Your task to perform on an android device: Clear the cart on costco. Search for asus zenbook on costco, select the first entry, add it to the cart, then select checkout. Image 0: 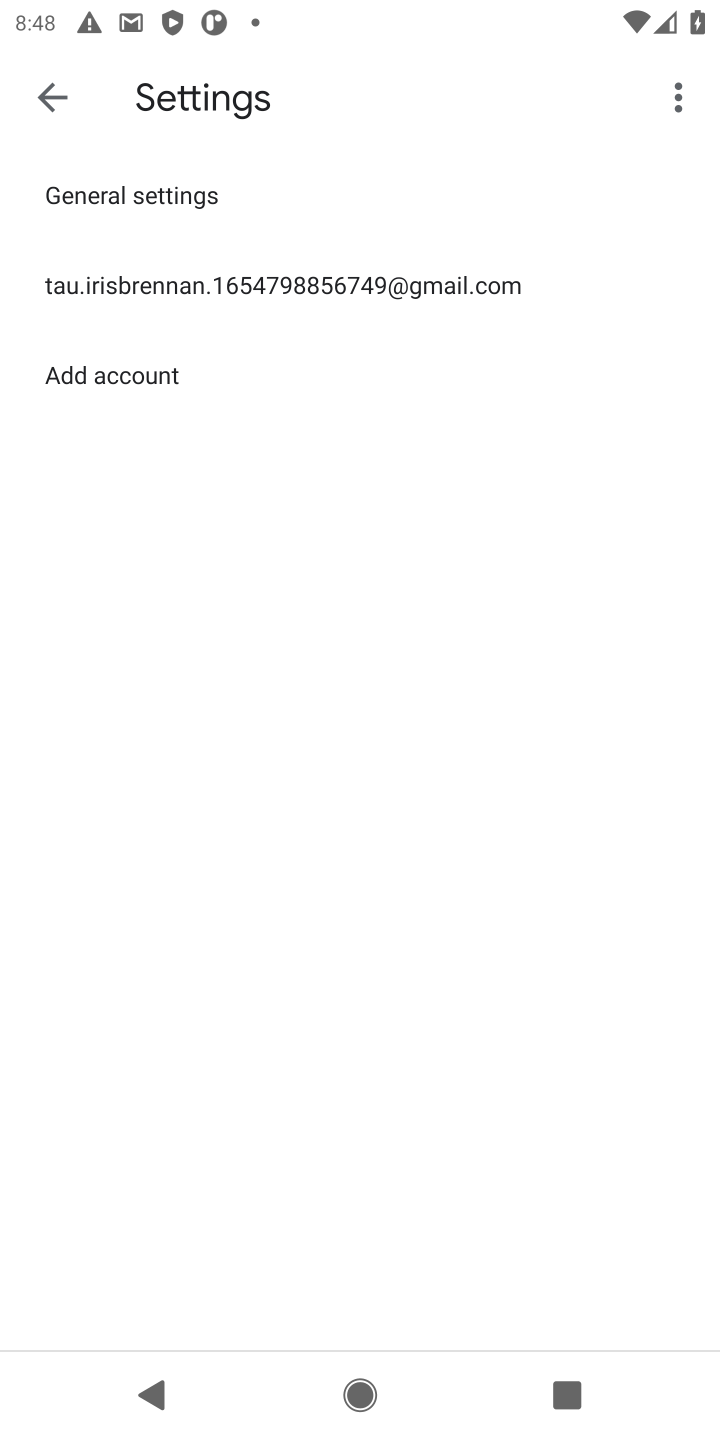
Step 0: press home button
Your task to perform on an android device: Clear the cart on costco. Search for asus zenbook on costco, select the first entry, add it to the cart, then select checkout. Image 1: 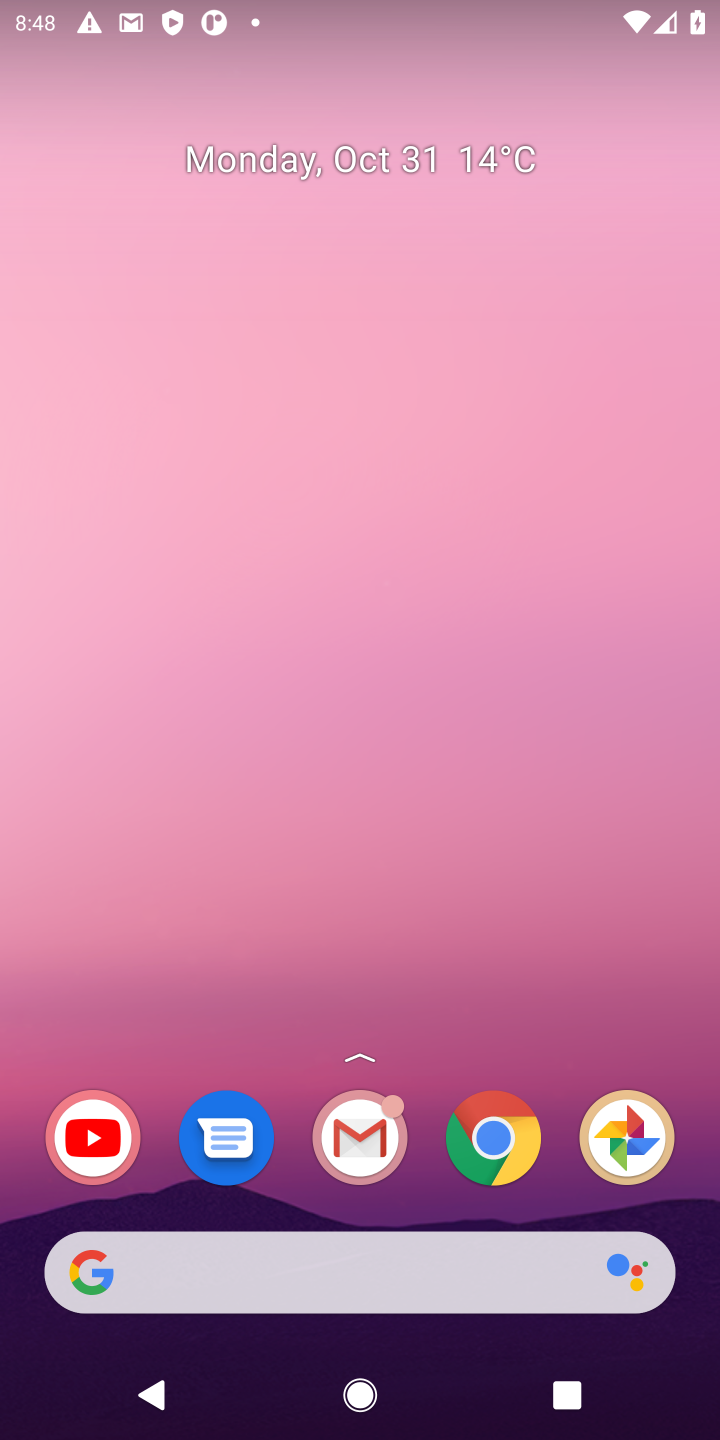
Step 1: click (504, 1150)
Your task to perform on an android device: Clear the cart on costco. Search for asus zenbook on costco, select the first entry, add it to the cart, then select checkout. Image 2: 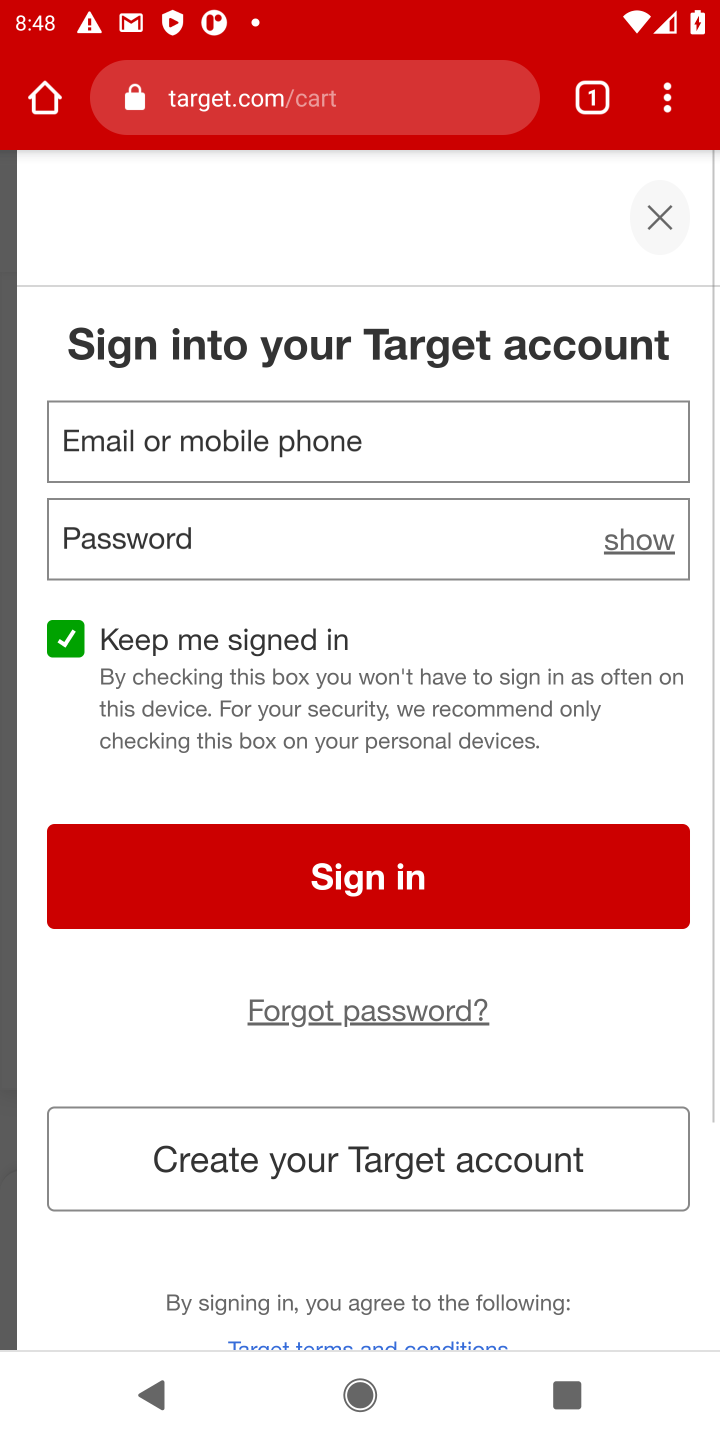
Step 2: click (216, 96)
Your task to perform on an android device: Clear the cart on costco. Search for asus zenbook on costco, select the first entry, add it to the cart, then select checkout. Image 3: 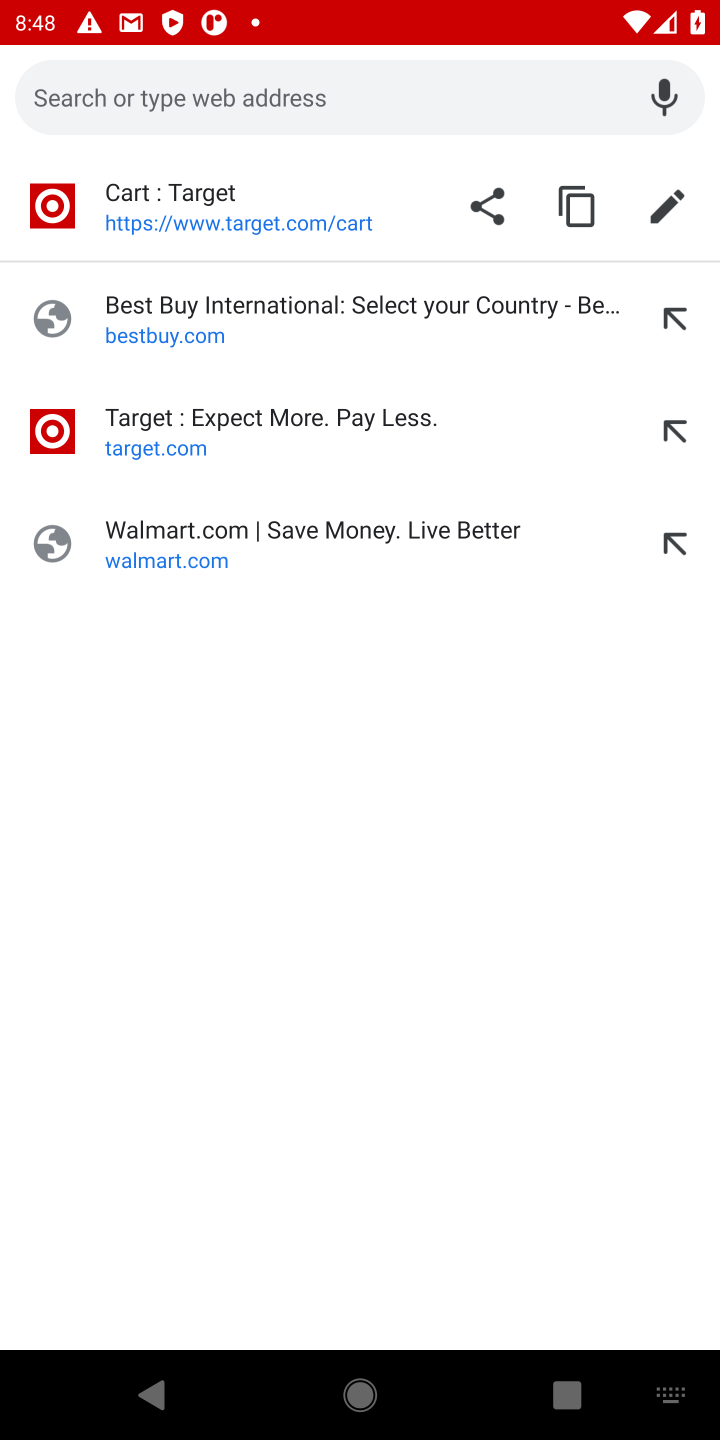
Step 3: type "costco"
Your task to perform on an android device: Clear the cart on costco. Search for asus zenbook on costco, select the first entry, add it to the cart, then select checkout. Image 4: 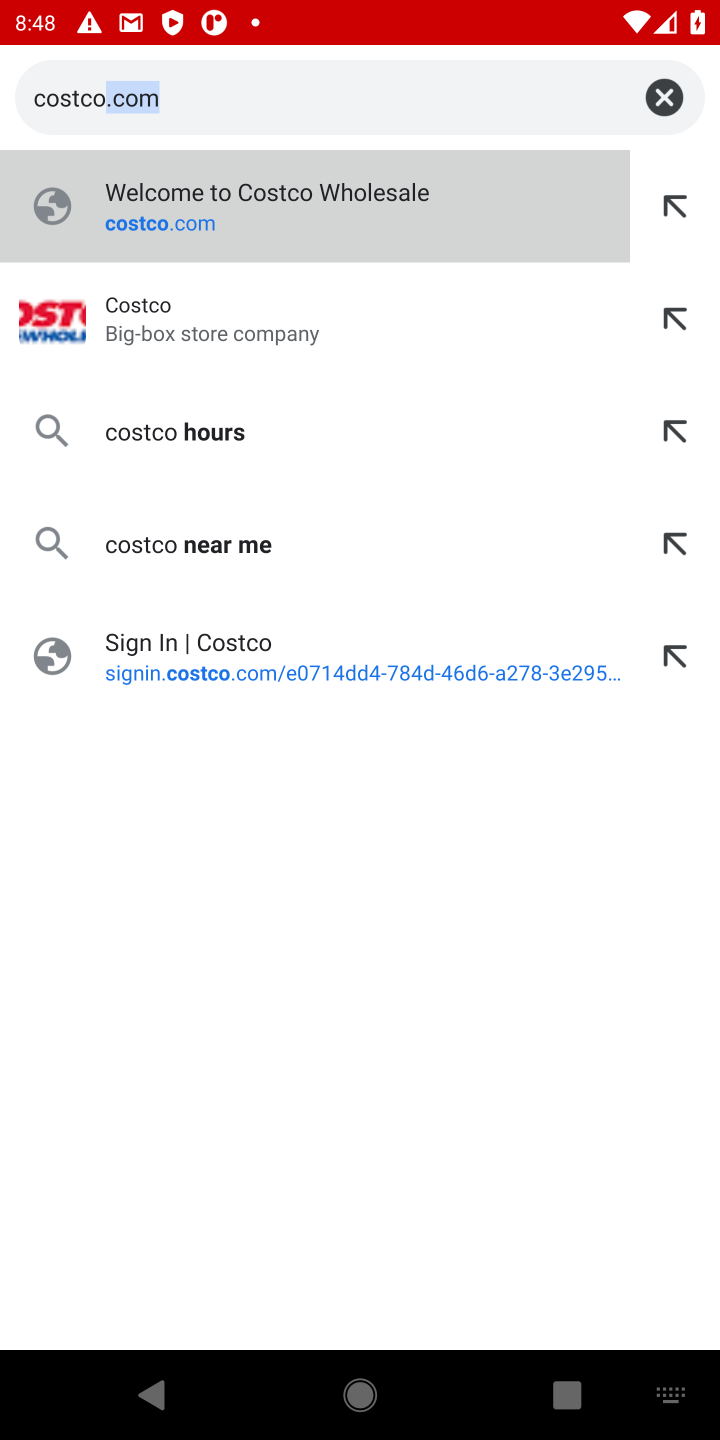
Step 4: click (131, 332)
Your task to perform on an android device: Clear the cart on costco. Search for asus zenbook on costco, select the first entry, add it to the cart, then select checkout. Image 5: 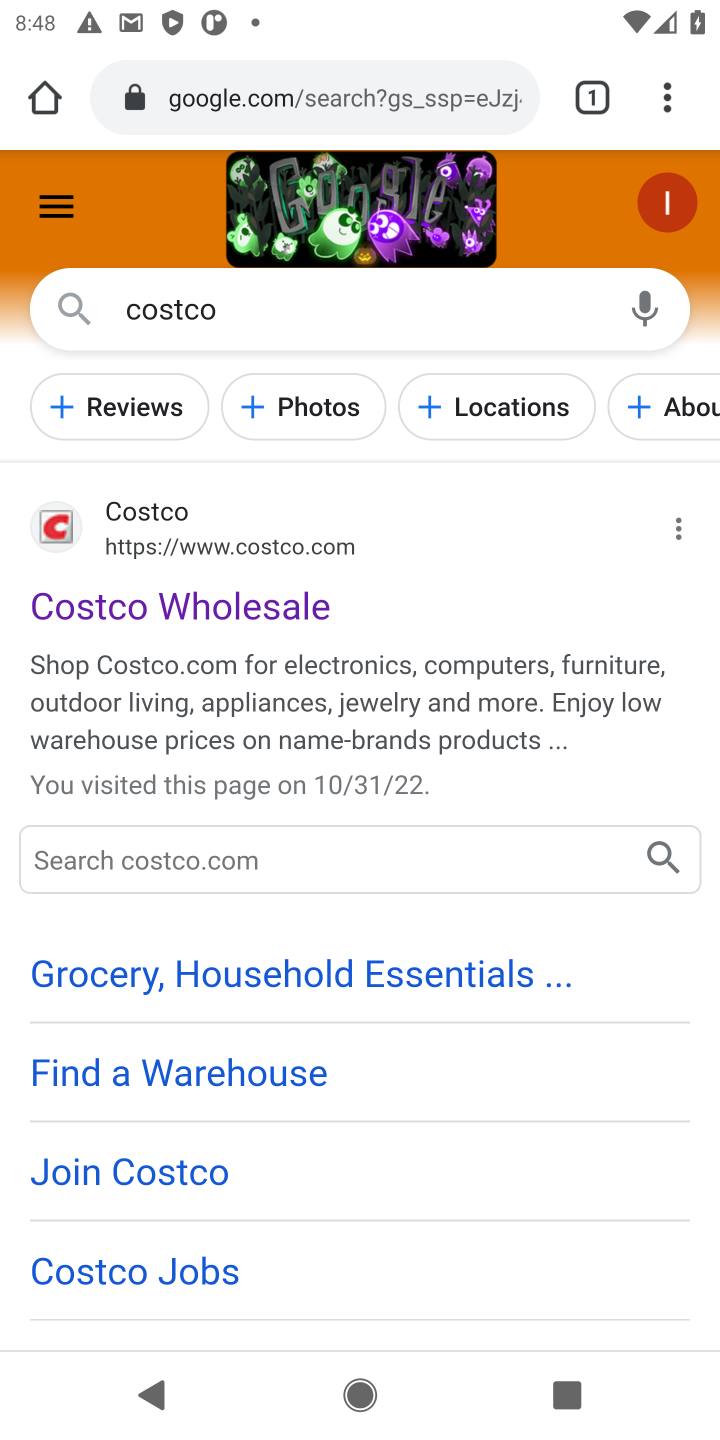
Step 5: click (156, 312)
Your task to perform on an android device: Clear the cart on costco. Search for asus zenbook on costco, select the first entry, add it to the cart, then select checkout. Image 6: 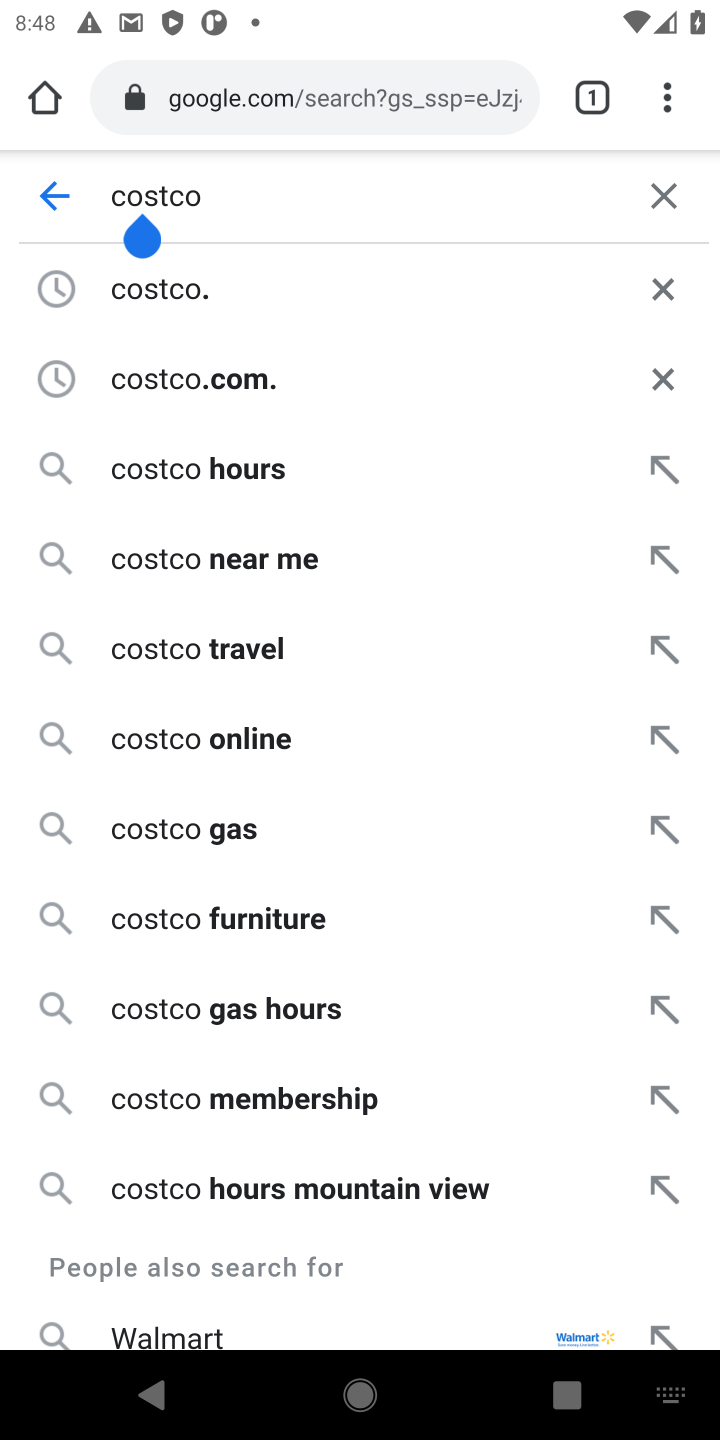
Step 6: click (642, 209)
Your task to perform on an android device: Clear the cart on costco. Search for asus zenbook on costco, select the first entry, add it to the cart, then select checkout. Image 7: 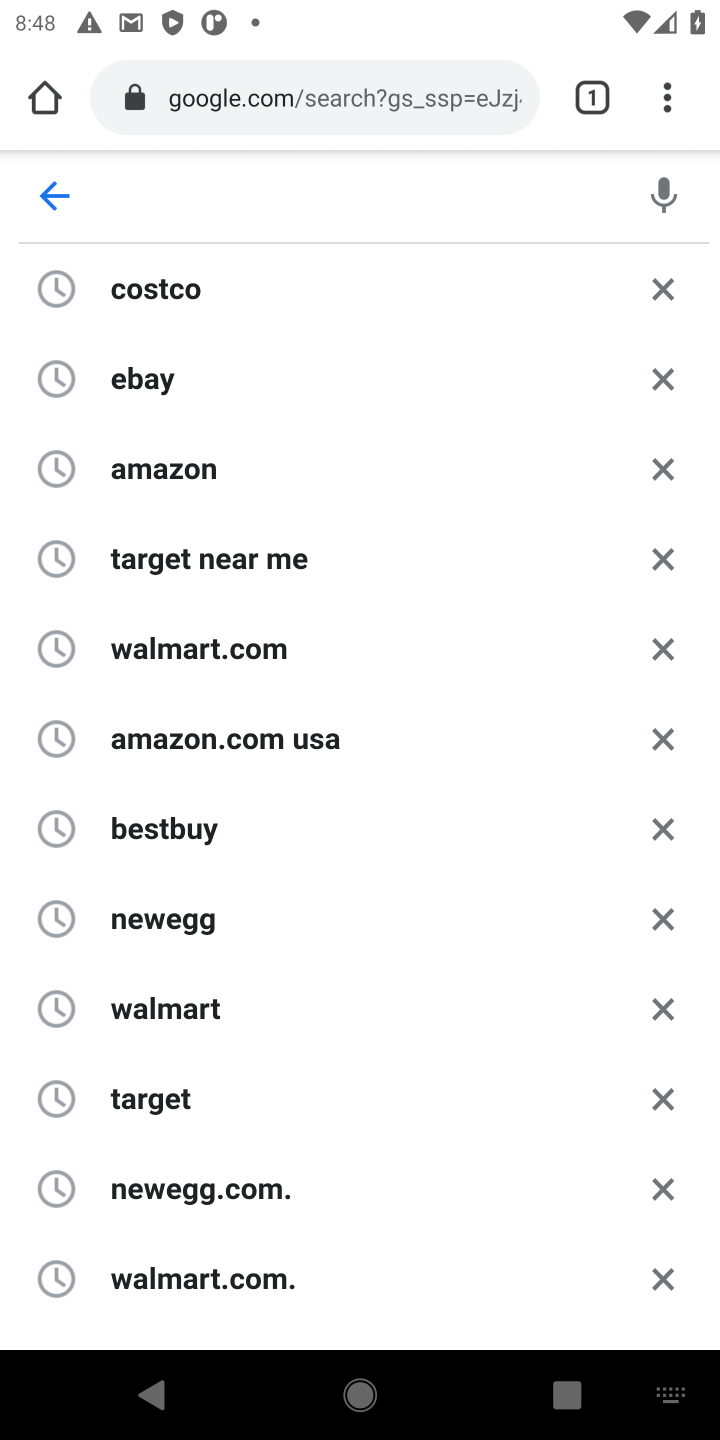
Step 7: press back button
Your task to perform on an android device: Clear the cart on costco. Search for asus zenbook on costco, select the first entry, add it to the cart, then select checkout. Image 8: 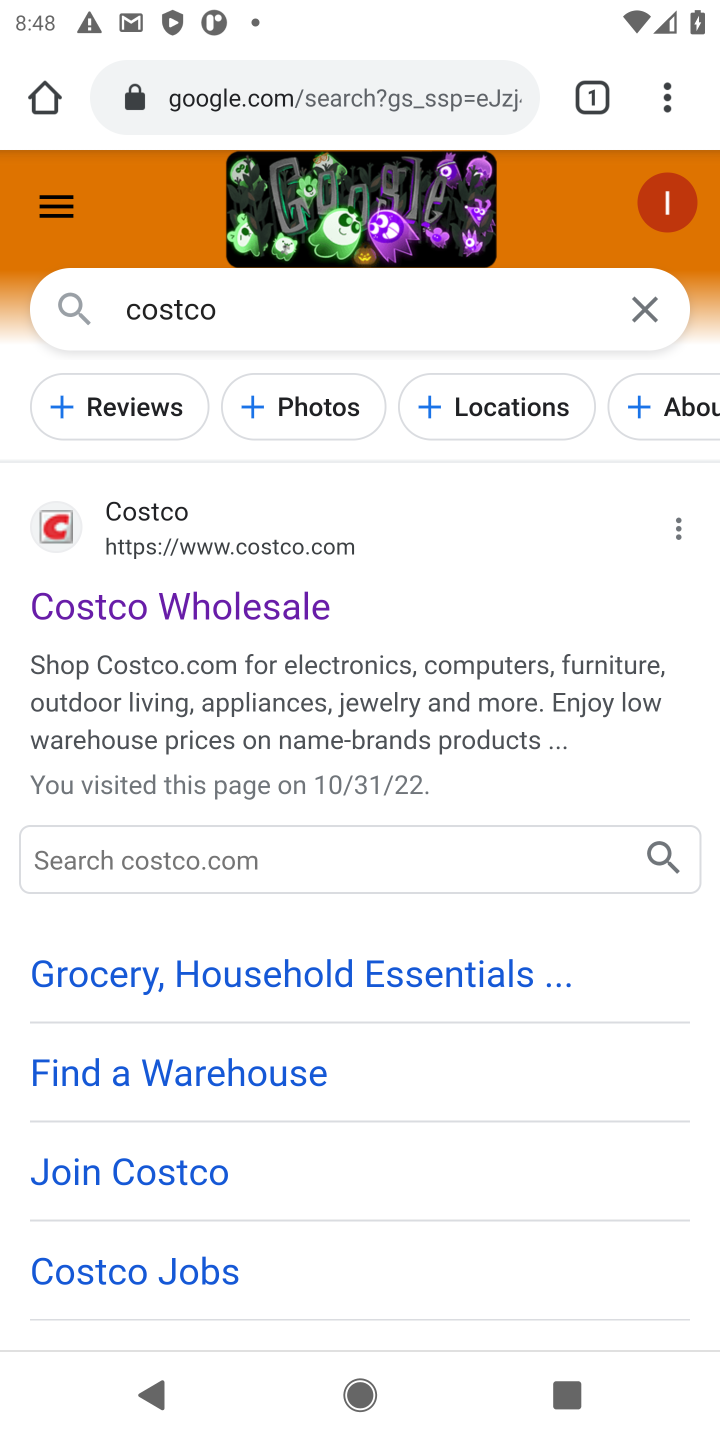
Step 8: drag from (219, 1074) to (261, 384)
Your task to perform on an android device: Clear the cart on costco. Search for asus zenbook on costco, select the first entry, add it to the cart, then select checkout. Image 9: 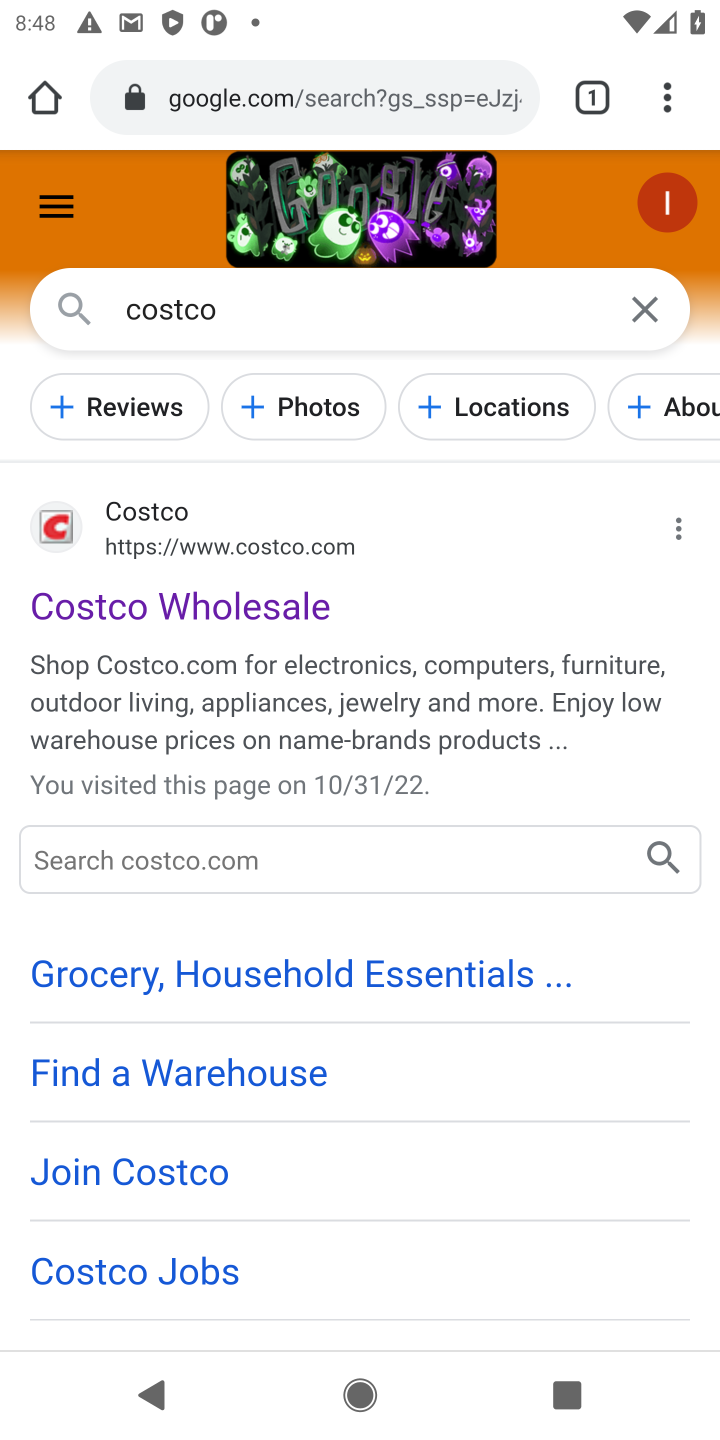
Step 9: drag from (174, 1227) to (152, 483)
Your task to perform on an android device: Clear the cart on costco. Search for asus zenbook on costco, select the first entry, add it to the cart, then select checkout. Image 10: 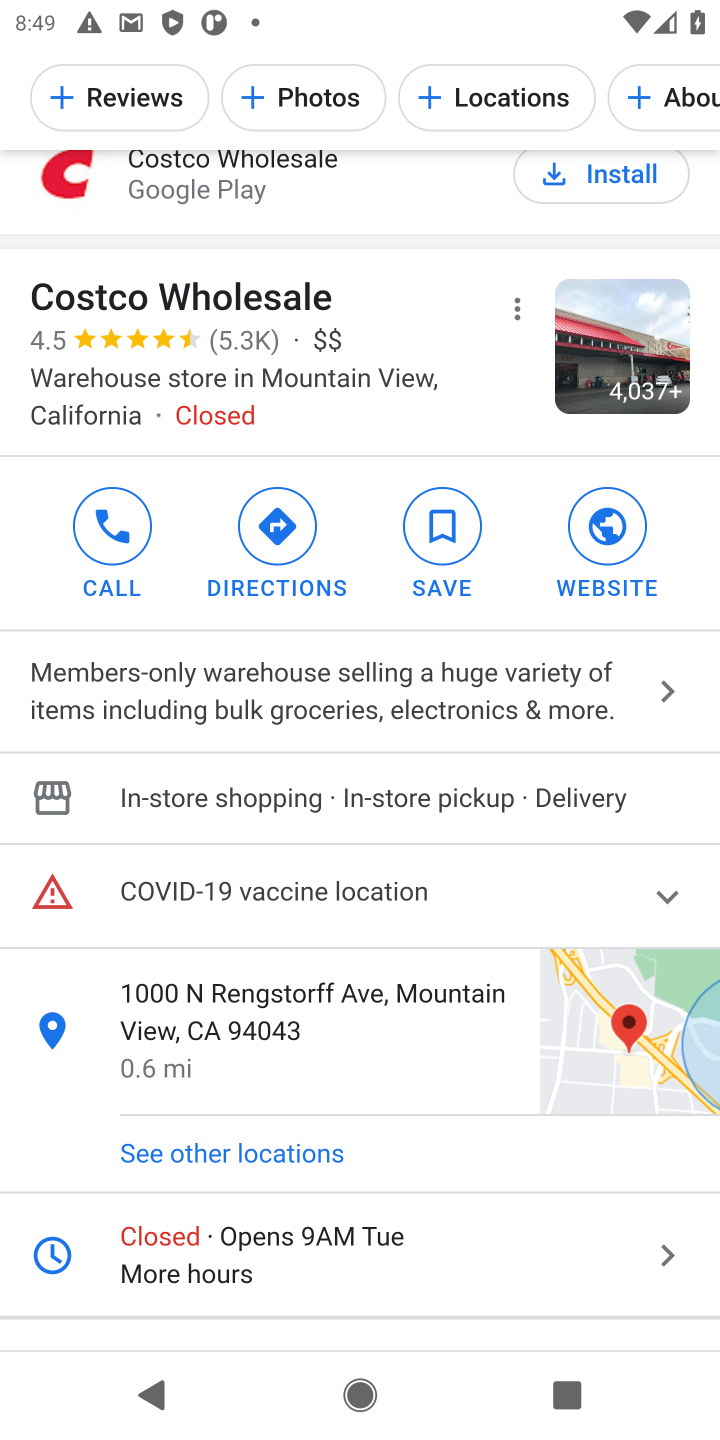
Step 10: drag from (62, 1163) to (165, 367)
Your task to perform on an android device: Clear the cart on costco. Search for asus zenbook on costco, select the first entry, add it to the cart, then select checkout. Image 11: 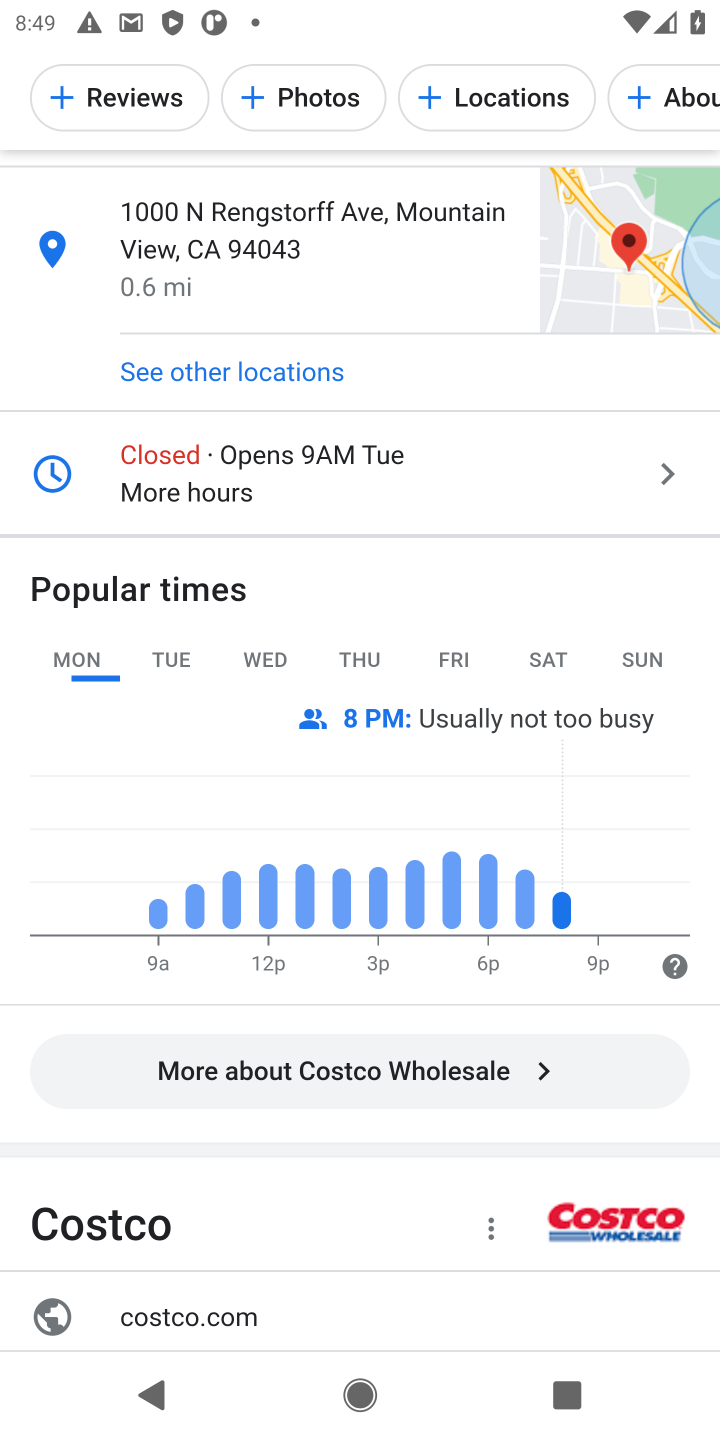
Step 11: drag from (17, 1120) to (76, 451)
Your task to perform on an android device: Clear the cart on costco. Search for asus zenbook on costco, select the first entry, add it to the cart, then select checkout. Image 12: 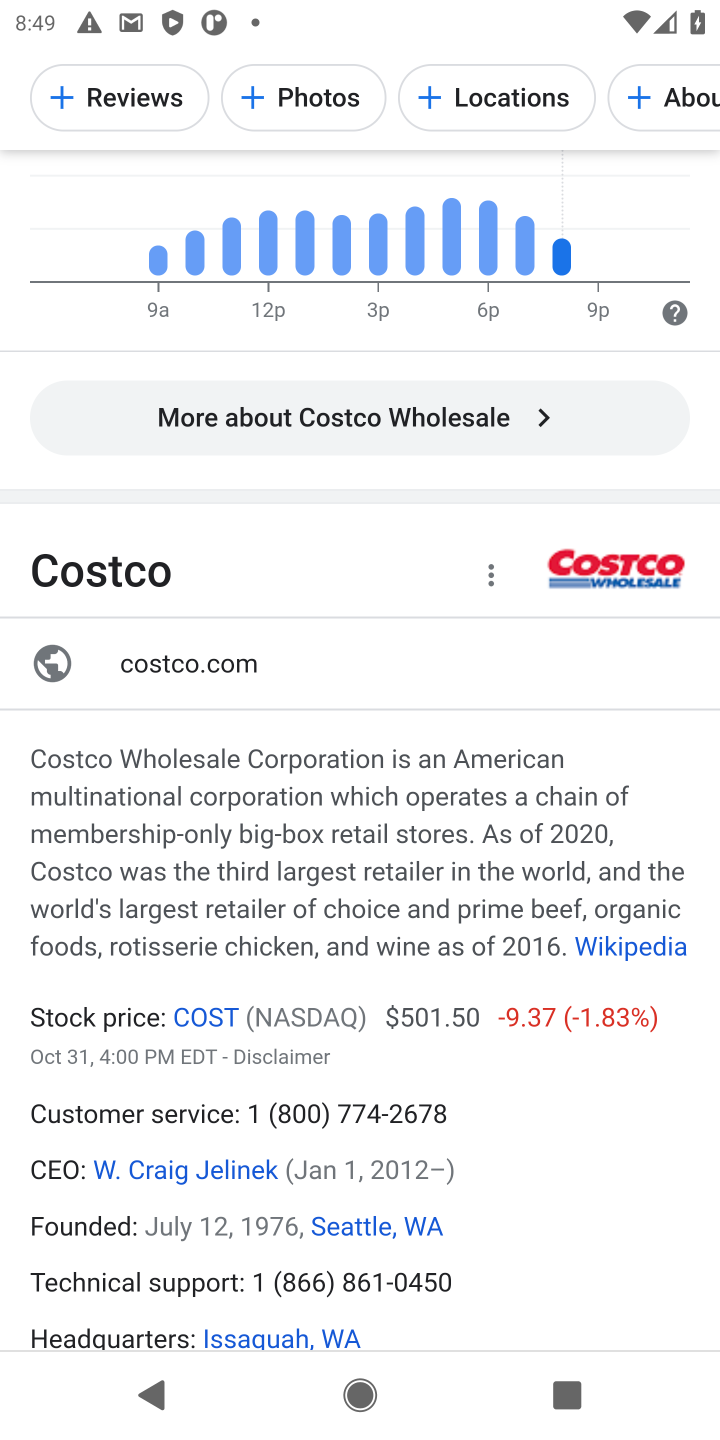
Step 12: drag from (110, 1027) to (150, 571)
Your task to perform on an android device: Clear the cart on costco. Search for asus zenbook on costco, select the first entry, add it to the cart, then select checkout. Image 13: 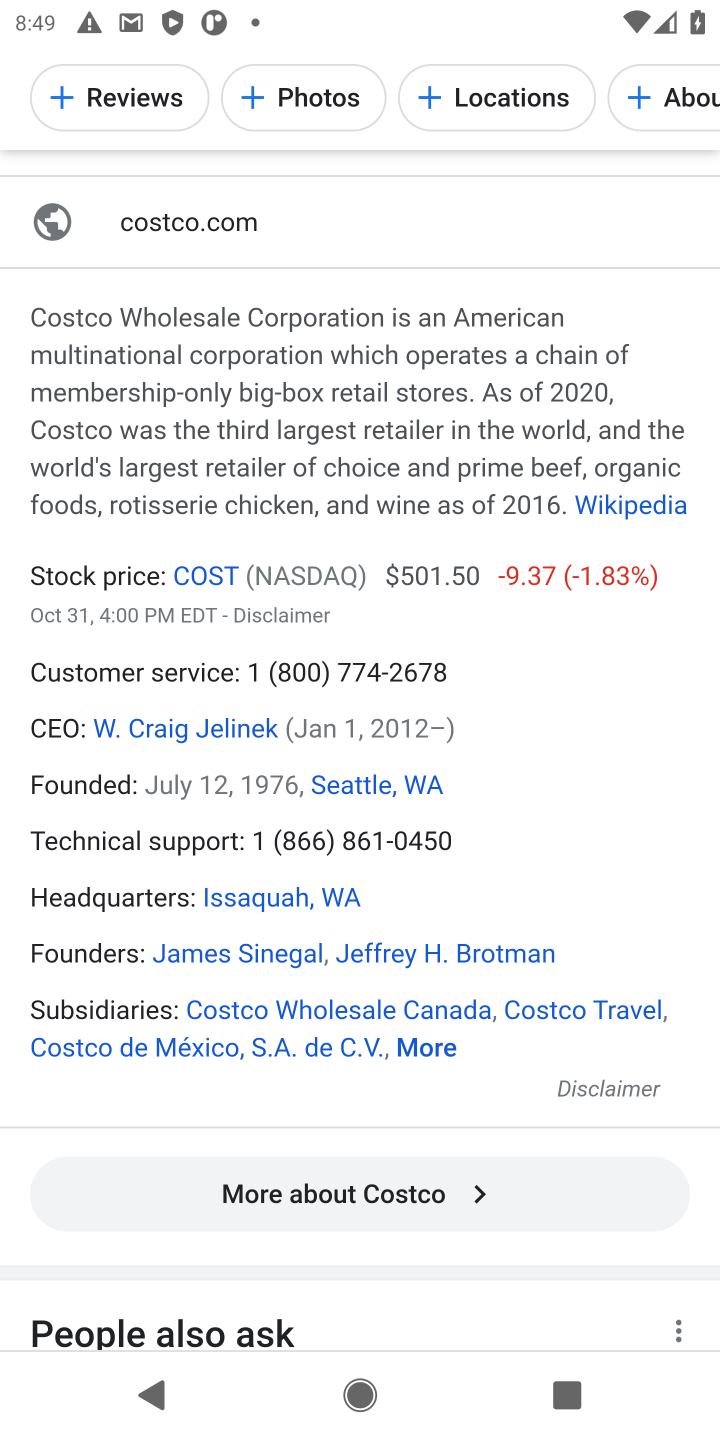
Step 13: drag from (123, 504) to (115, 1188)
Your task to perform on an android device: Clear the cart on costco. Search for asus zenbook on costco, select the first entry, add it to the cart, then select checkout. Image 14: 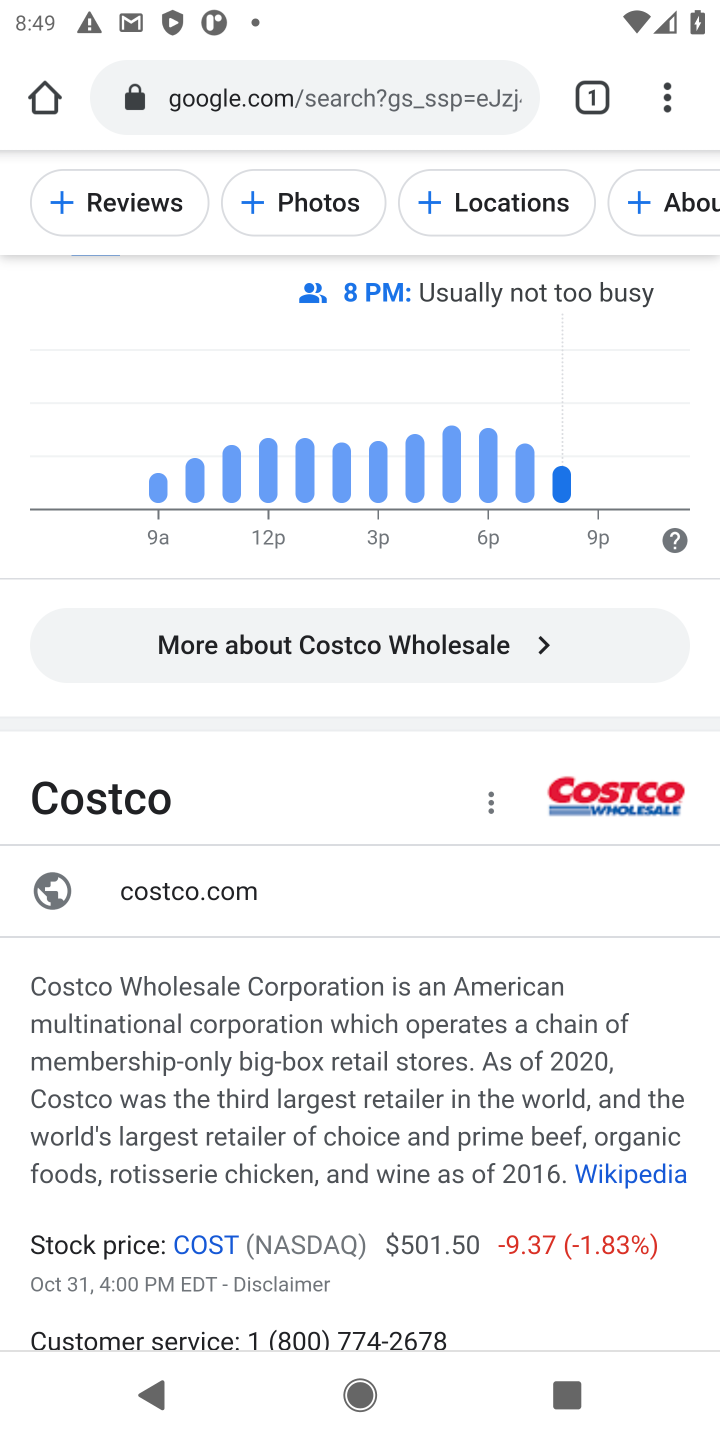
Step 14: drag from (110, 629) to (164, 1362)
Your task to perform on an android device: Clear the cart on costco. Search for asus zenbook on costco, select the first entry, add it to the cart, then select checkout. Image 15: 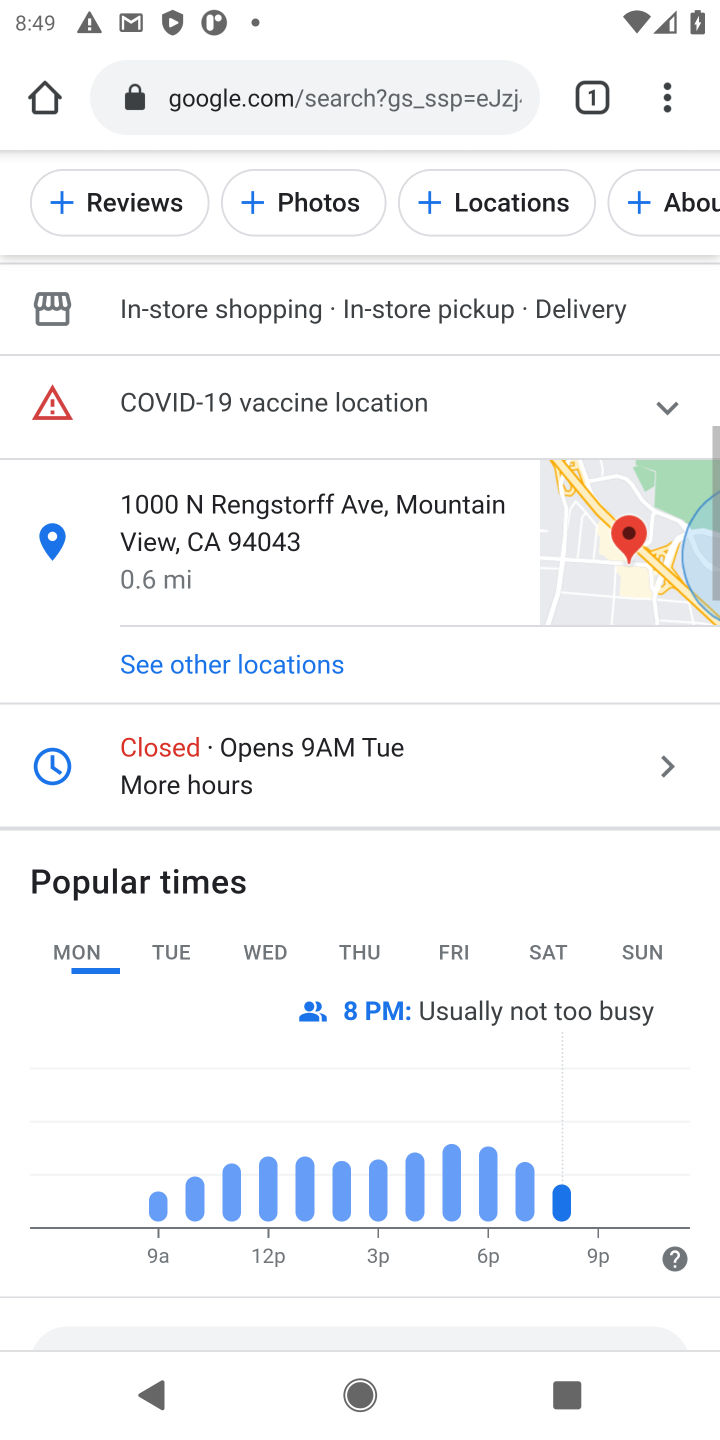
Step 15: drag from (175, 467) to (199, 1399)
Your task to perform on an android device: Clear the cart on costco. Search for asus zenbook on costco, select the first entry, add it to the cart, then select checkout. Image 16: 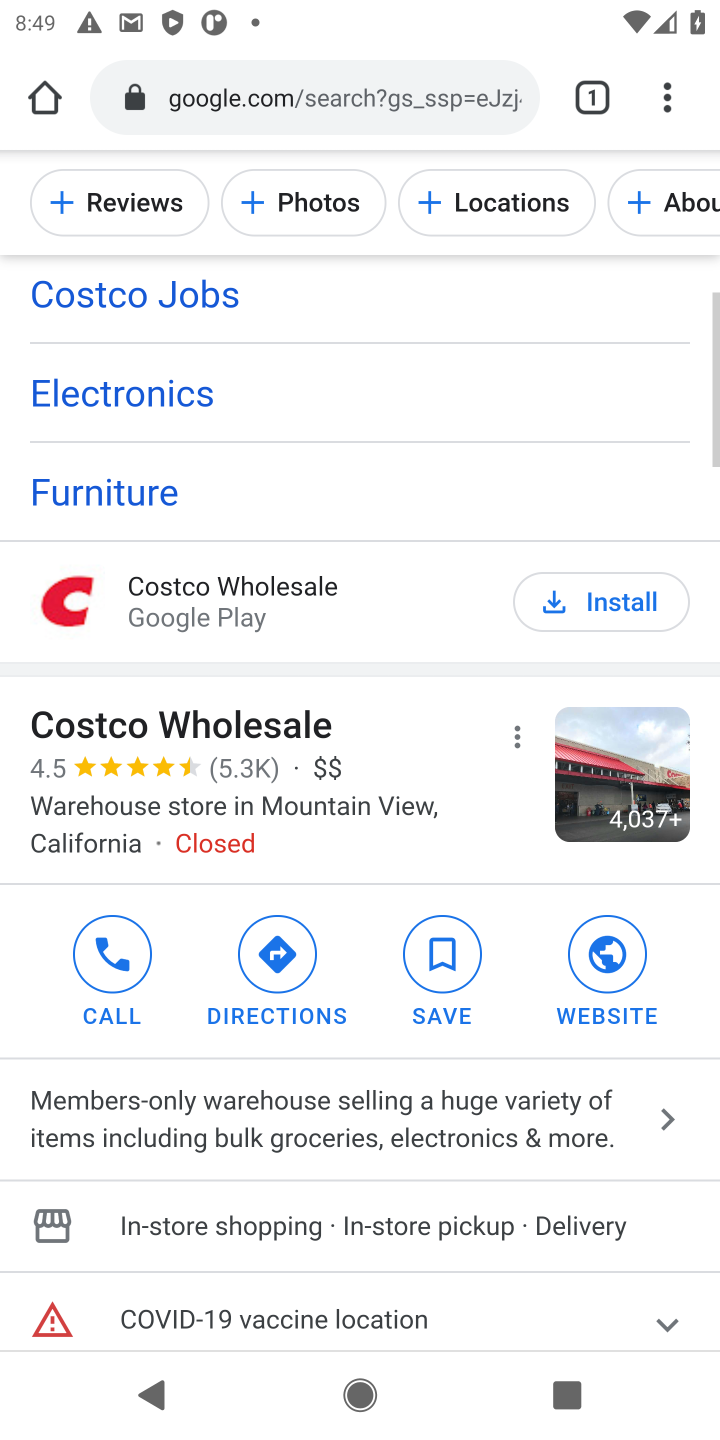
Step 16: drag from (265, 380) to (182, 1144)
Your task to perform on an android device: Clear the cart on costco. Search for asus zenbook on costco, select the first entry, add it to the cart, then select checkout. Image 17: 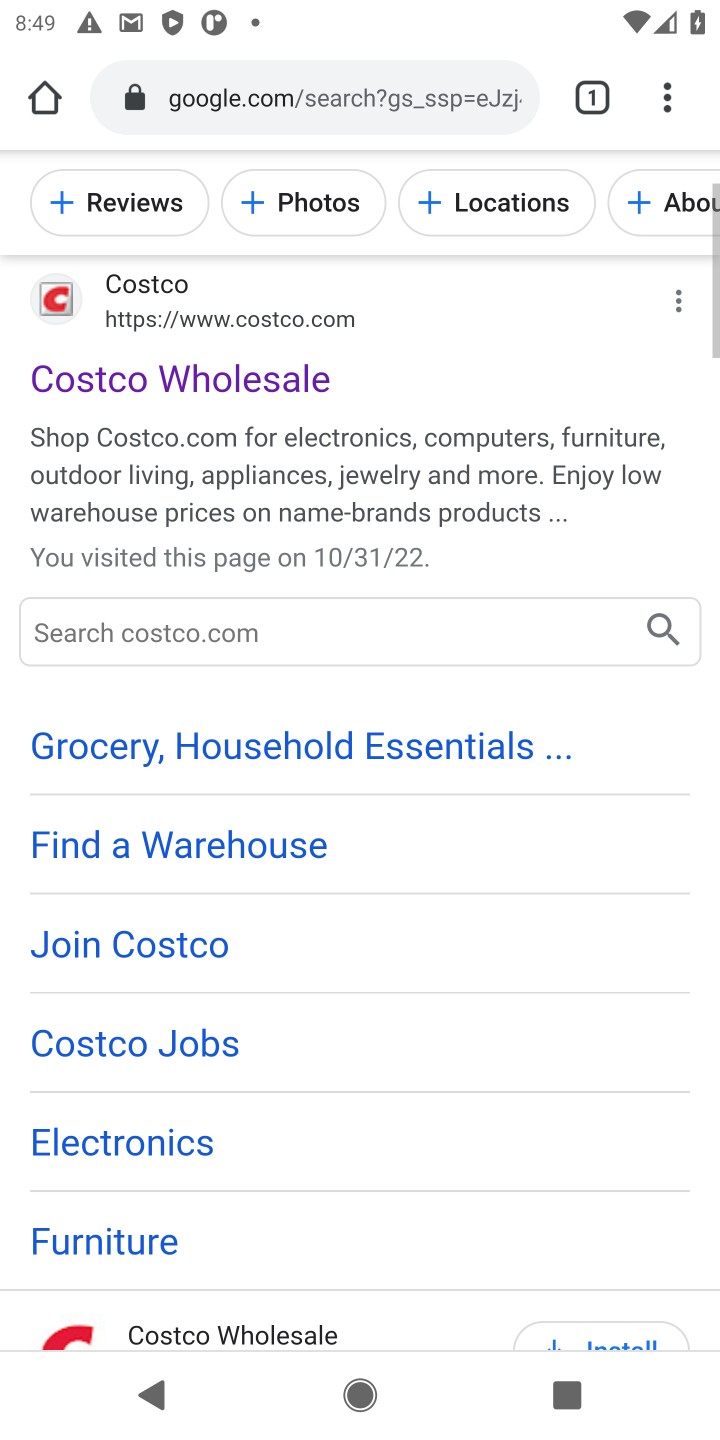
Step 17: drag from (143, 457) to (8, 1207)
Your task to perform on an android device: Clear the cart on costco. Search for asus zenbook on costco, select the first entry, add it to the cart, then select checkout. Image 18: 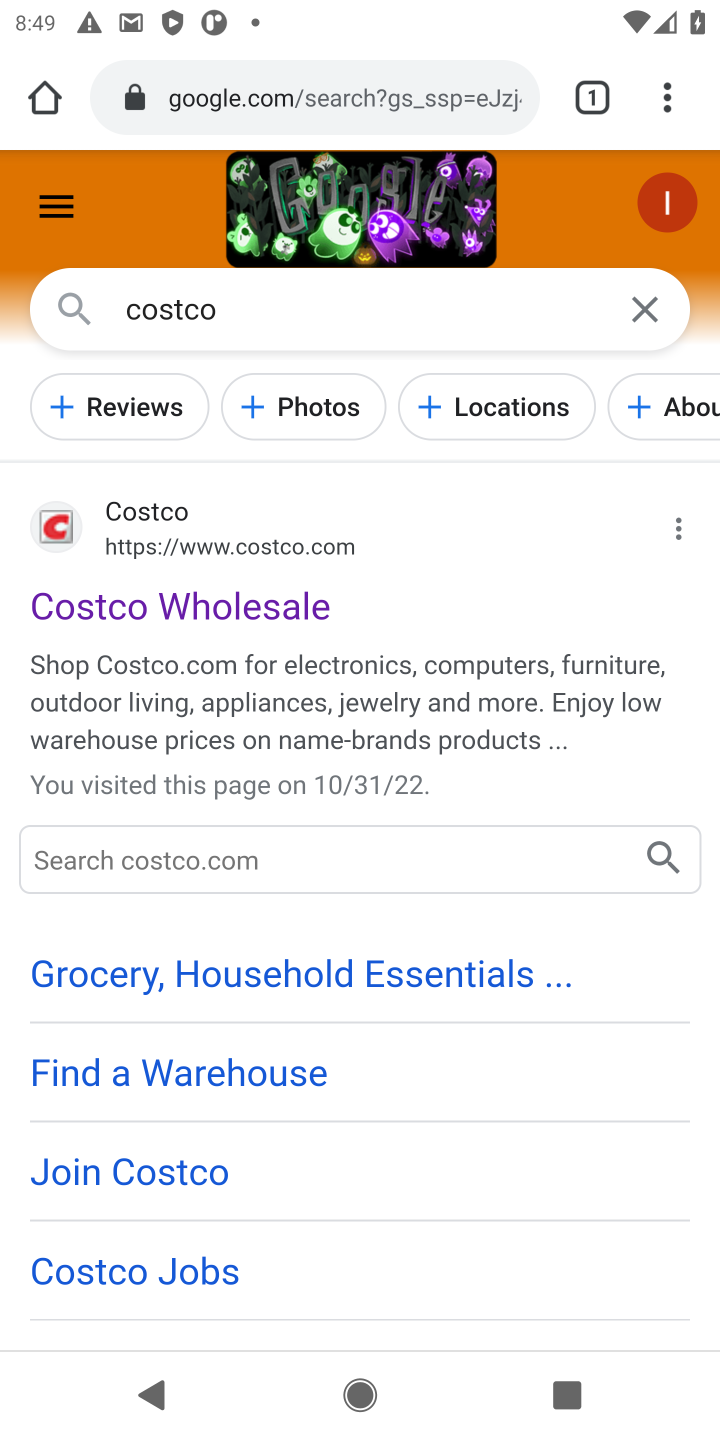
Step 18: click (116, 618)
Your task to perform on an android device: Clear the cart on costco. Search for asus zenbook on costco, select the first entry, add it to the cart, then select checkout. Image 19: 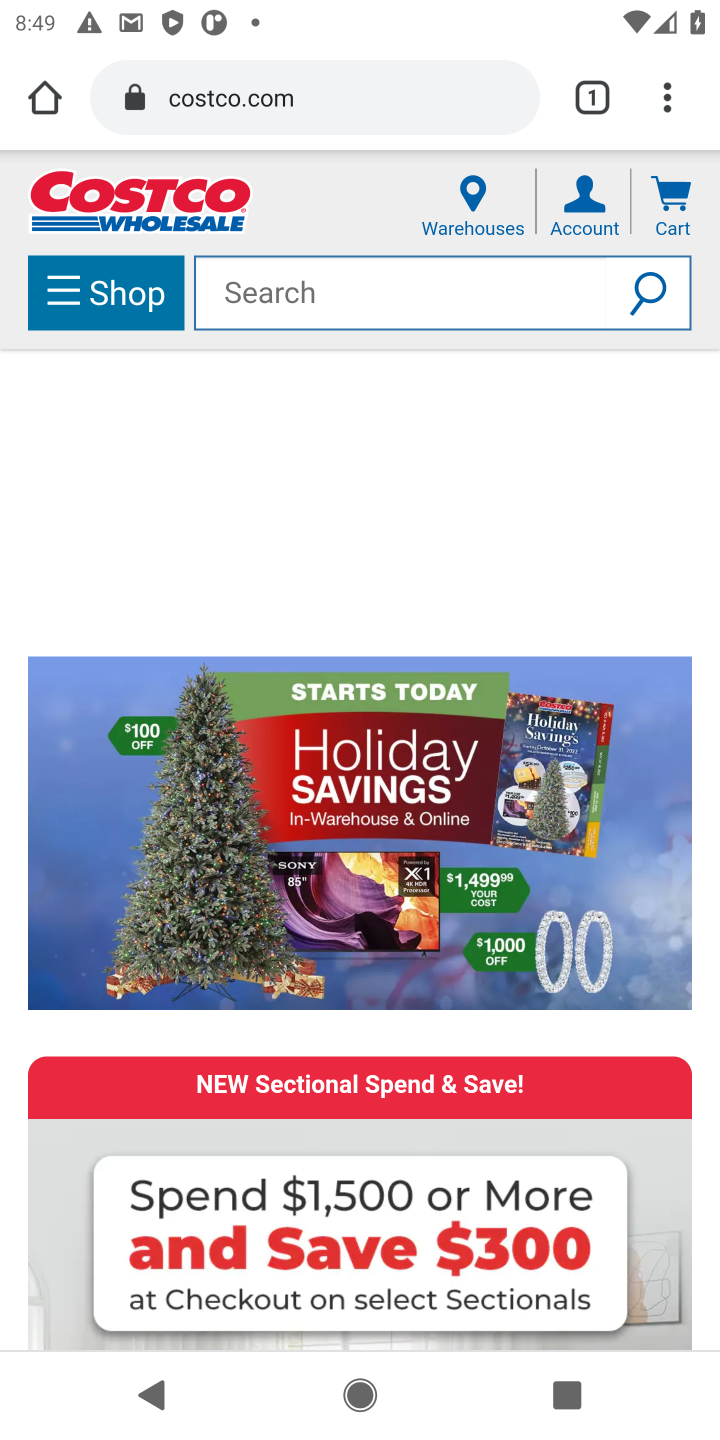
Step 19: click (306, 288)
Your task to perform on an android device: Clear the cart on costco. Search for asus zenbook on costco, select the first entry, add it to the cart, then select checkout. Image 20: 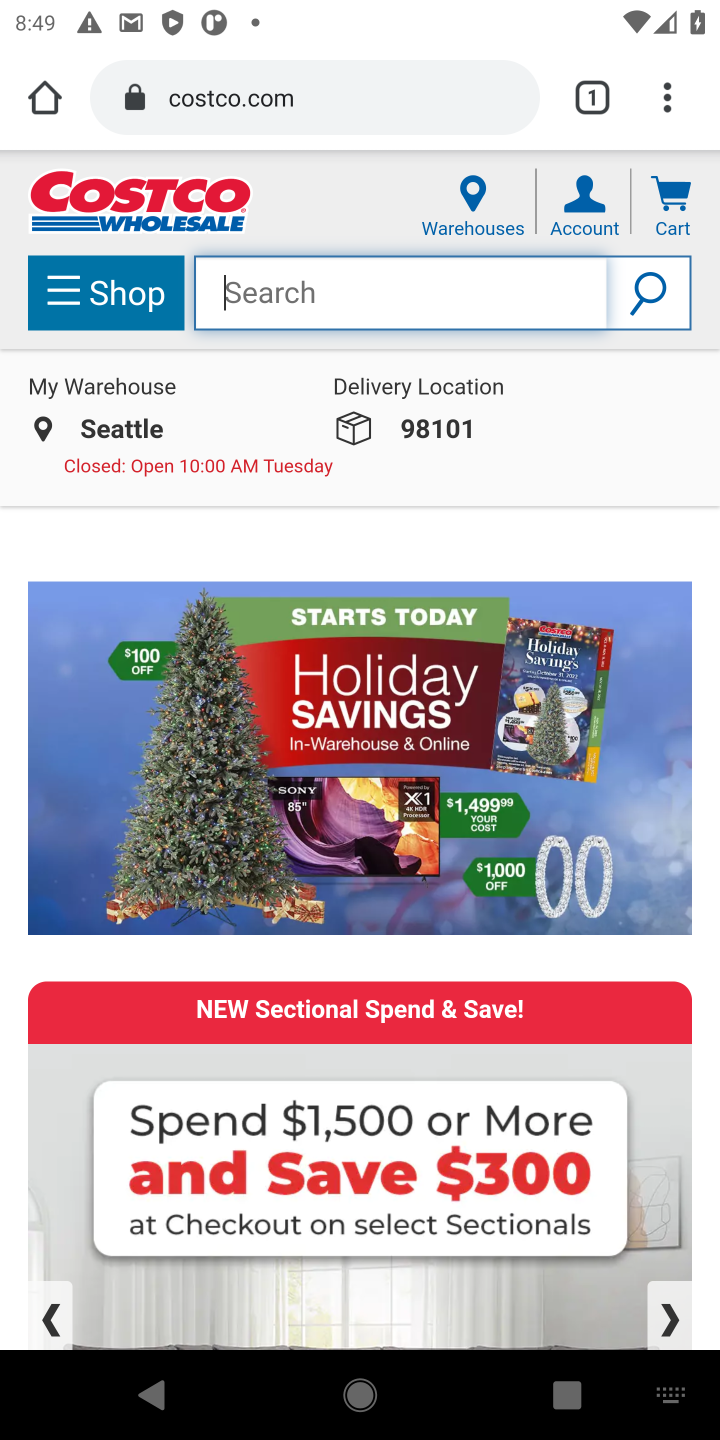
Step 20: type "asus zenbook"
Your task to perform on an android device: Clear the cart on costco. Search for asus zenbook on costco, select the first entry, add it to the cart, then select checkout. Image 21: 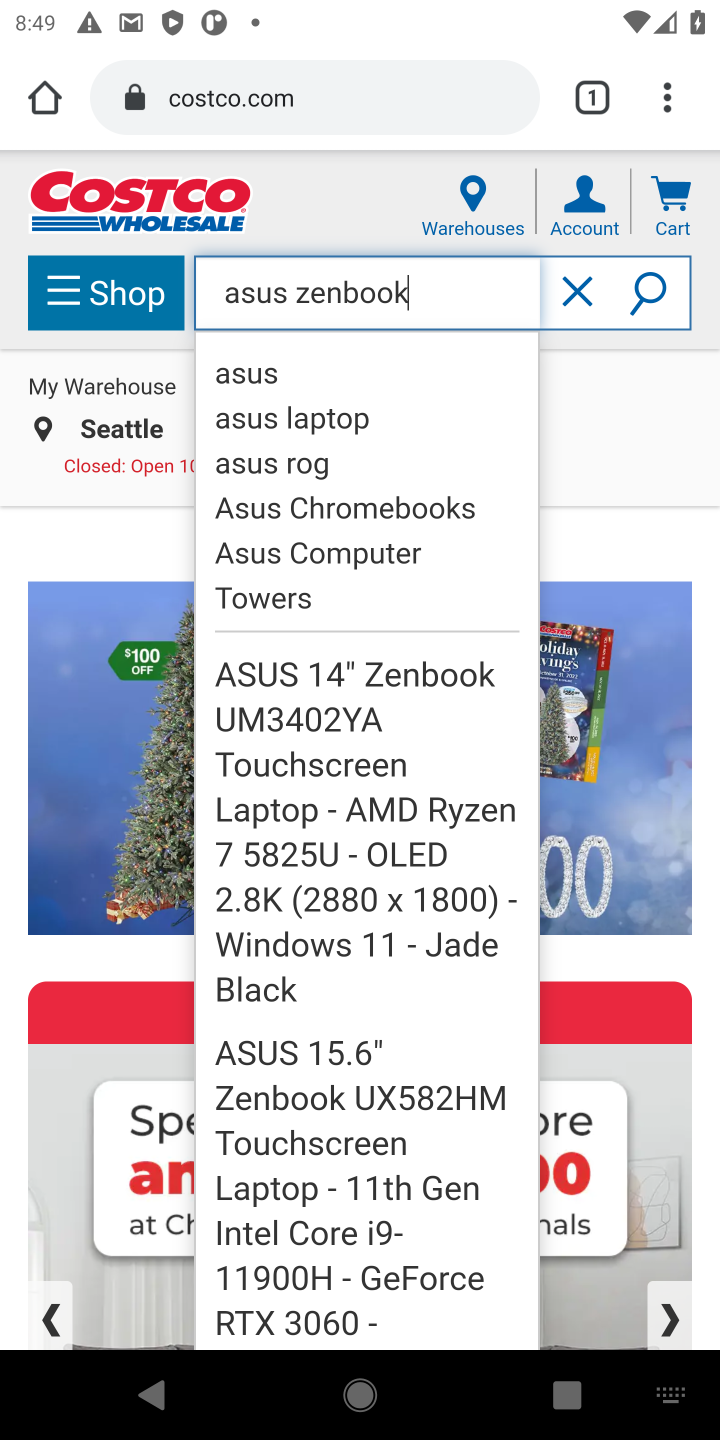
Step 21: click (327, 1113)
Your task to perform on an android device: Clear the cart on costco. Search for asus zenbook on costco, select the first entry, add it to the cart, then select checkout. Image 22: 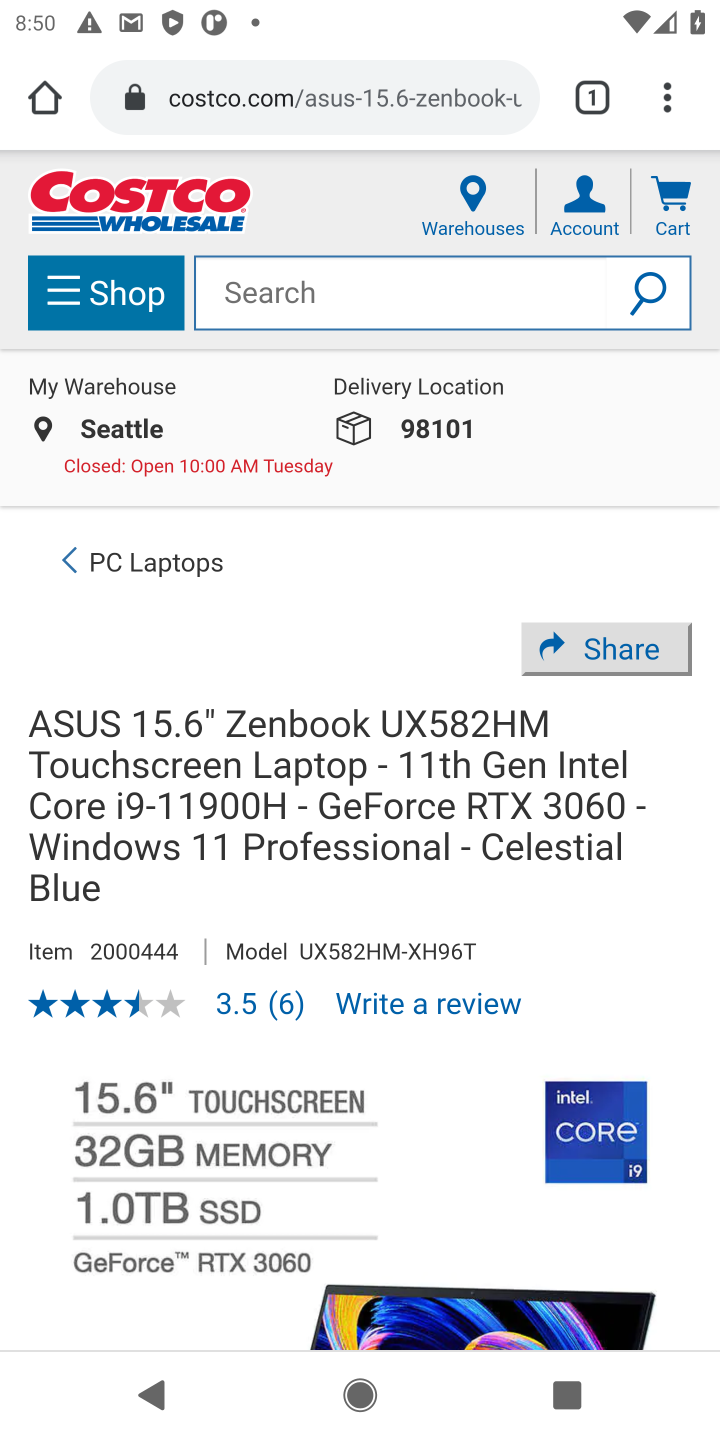
Step 22: drag from (238, 1083) to (293, 416)
Your task to perform on an android device: Clear the cart on costco. Search for asus zenbook on costco, select the first entry, add it to the cart, then select checkout. Image 23: 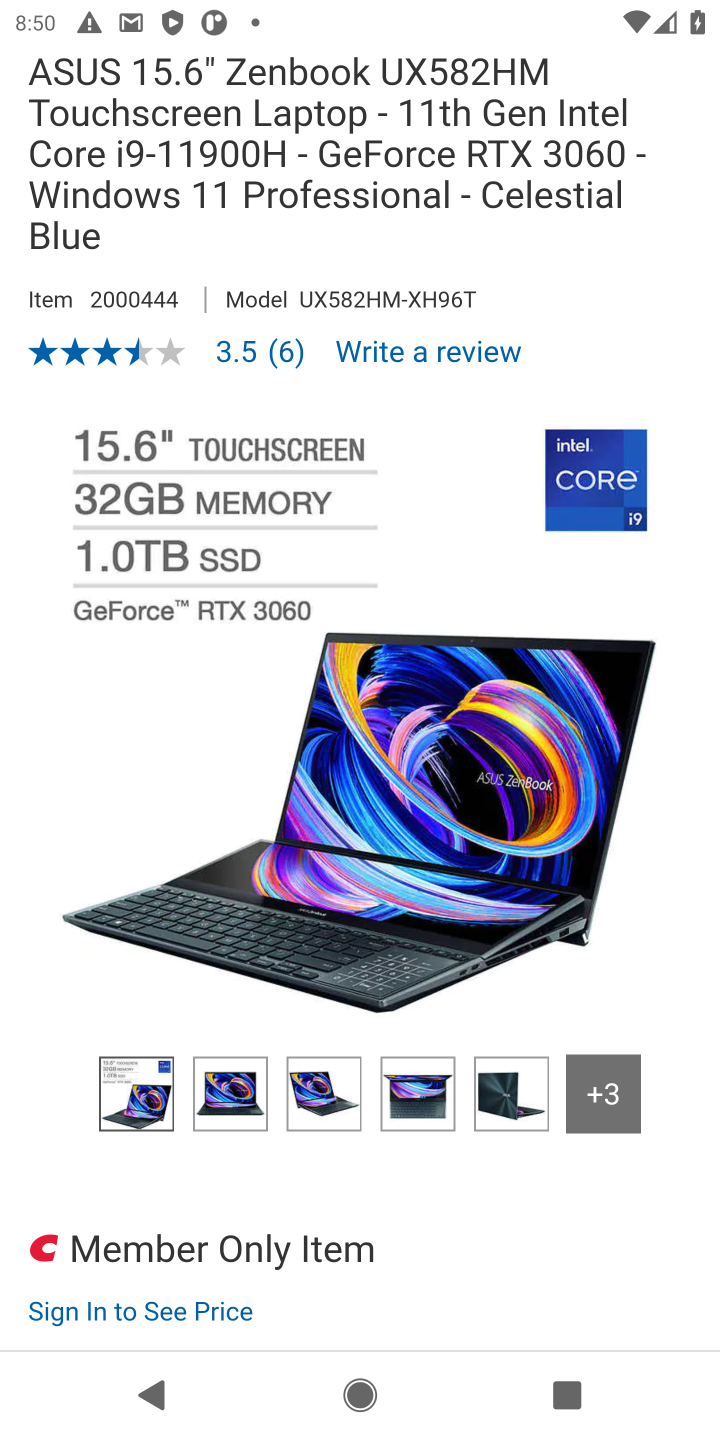
Step 23: drag from (232, 1080) to (193, 448)
Your task to perform on an android device: Clear the cart on costco. Search for asus zenbook on costco, select the first entry, add it to the cart, then select checkout. Image 24: 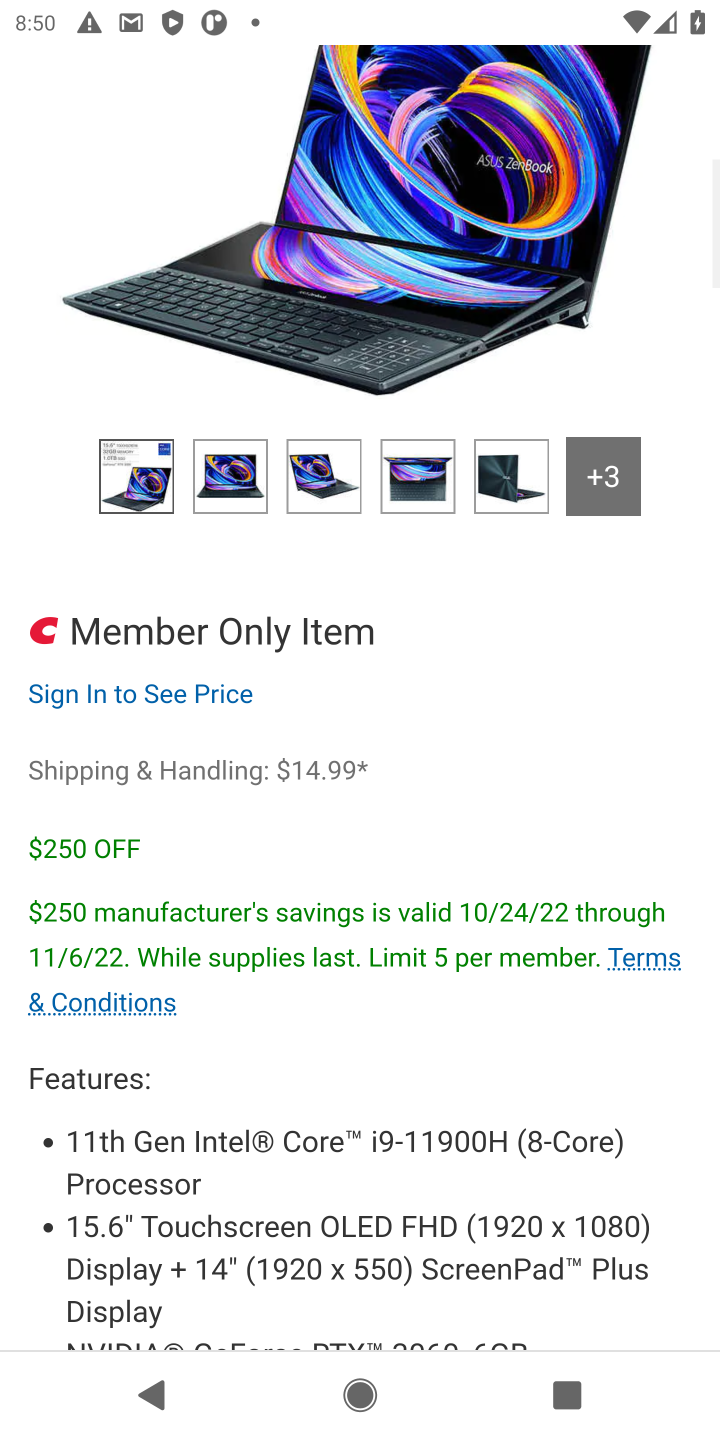
Step 24: drag from (199, 1018) to (162, 554)
Your task to perform on an android device: Clear the cart on costco. Search for asus zenbook on costco, select the first entry, add it to the cart, then select checkout. Image 25: 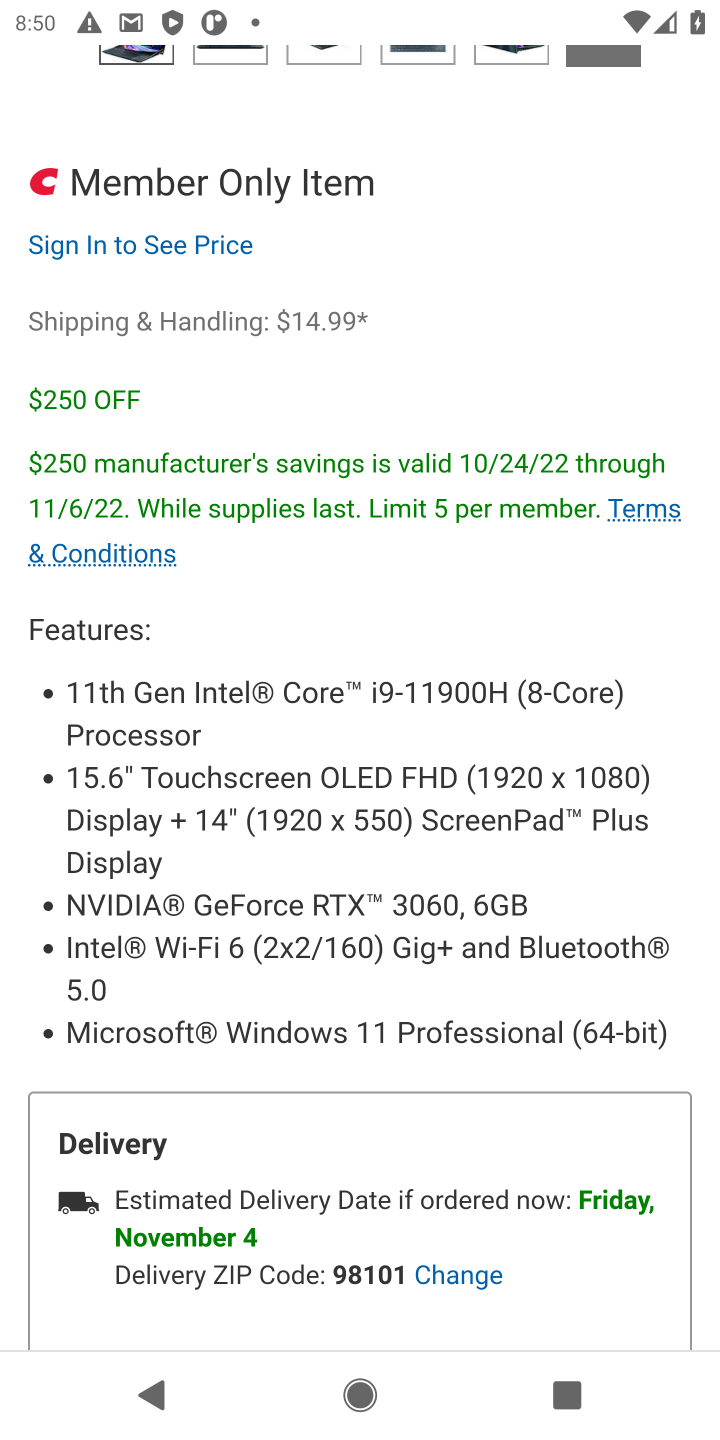
Step 25: drag from (109, 1028) to (132, 614)
Your task to perform on an android device: Clear the cart on costco. Search for asus zenbook on costco, select the first entry, add it to the cart, then select checkout. Image 26: 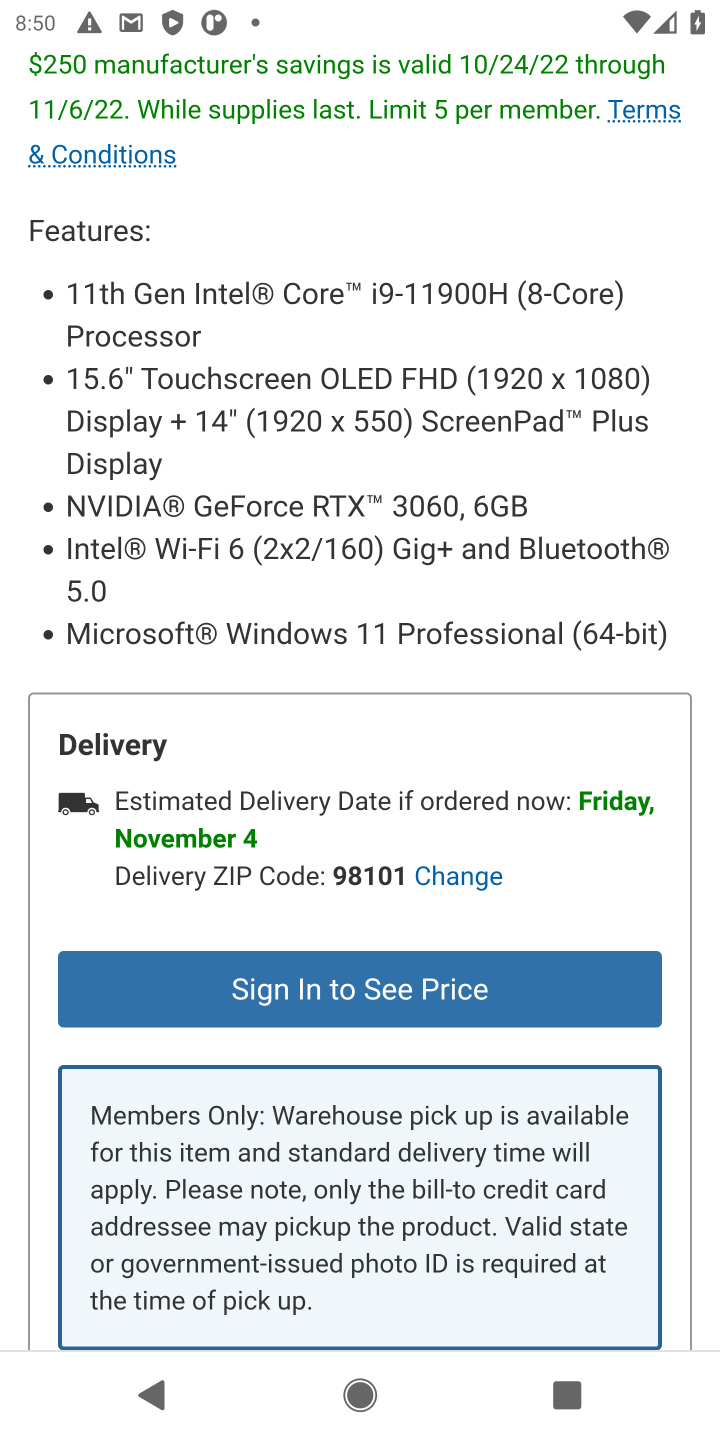
Step 26: drag from (258, 1198) to (209, 488)
Your task to perform on an android device: Clear the cart on costco. Search for asus zenbook on costco, select the first entry, add it to the cart, then select checkout. Image 27: 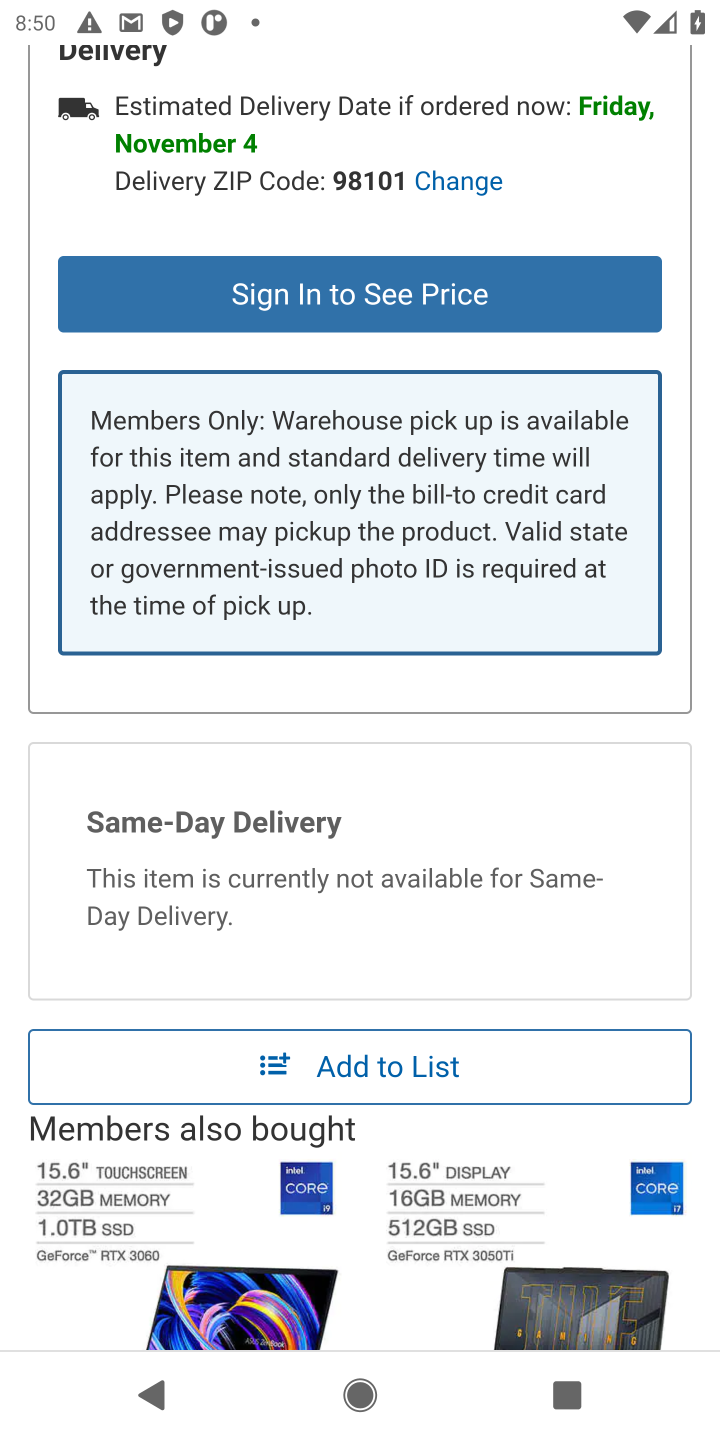
Step 27: click (304, 1067)
Your task to perform on an android device: Clear the cart on costco. Search for asus zenbook on costco, select the first entry, add it to the cart, then select checkout. Image 28: 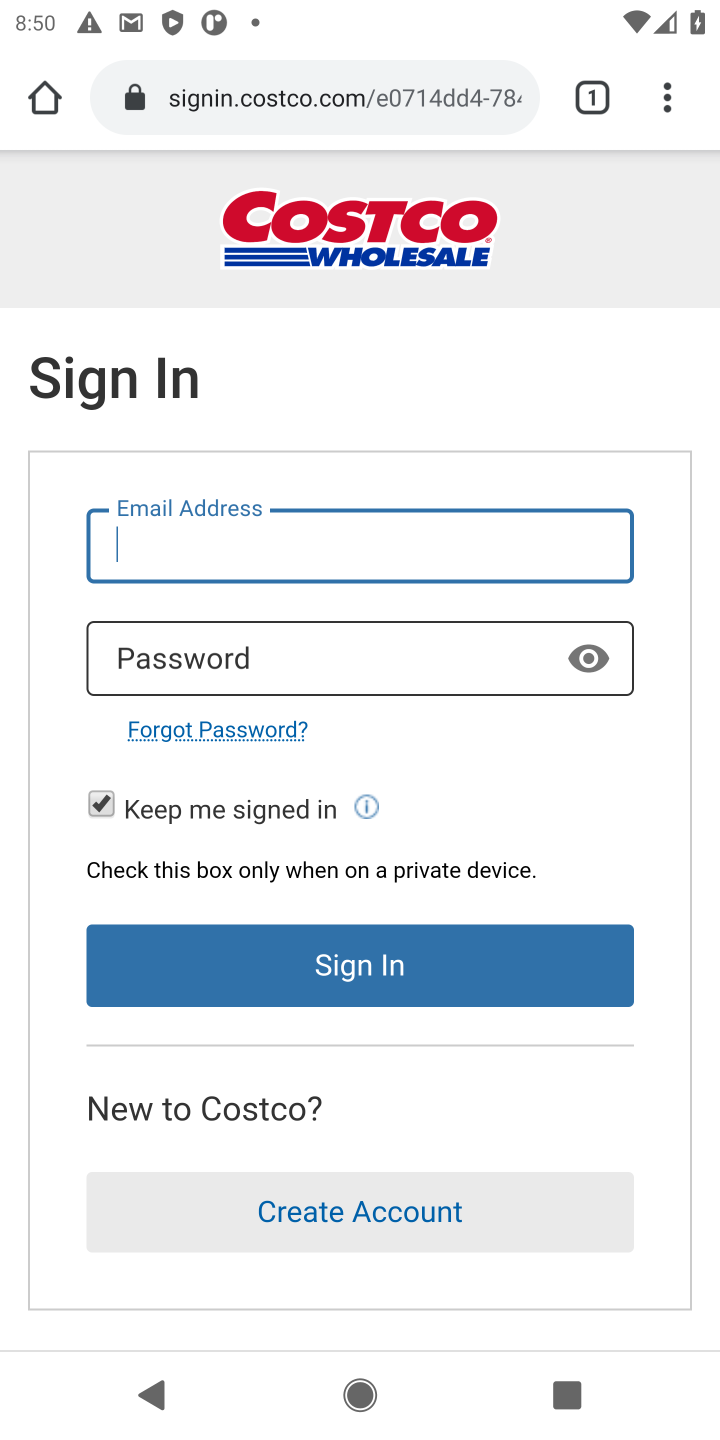
Step 28: task complete